Your task to perform on an android device: open the mobile data screen to see how much data has been used Image 0: 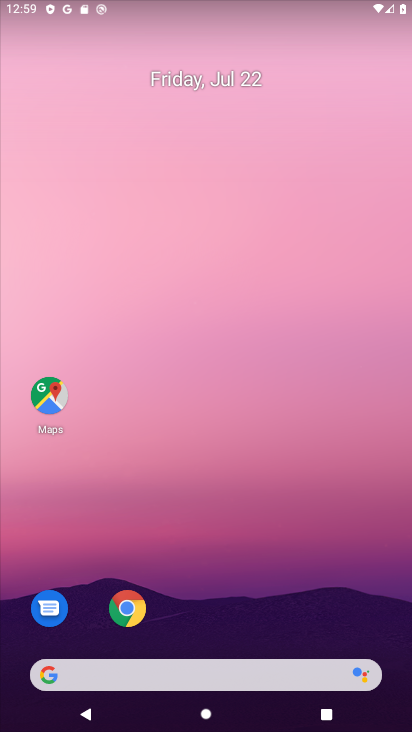
Step 0: drag from (302, 358) to (296, 544)
Your task to perform on an android device: open the mobile data screen to see how much data has been used Image 1: 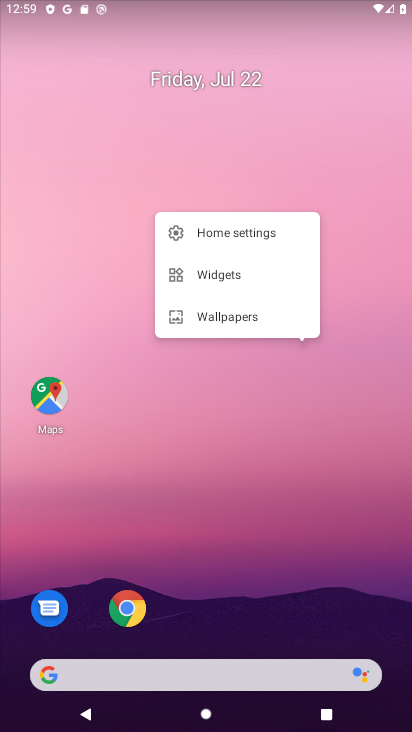
Step 1: click (255, 66)
Your task to perform on an android device: open the mobile data screen to see how much data has been used Image 2: 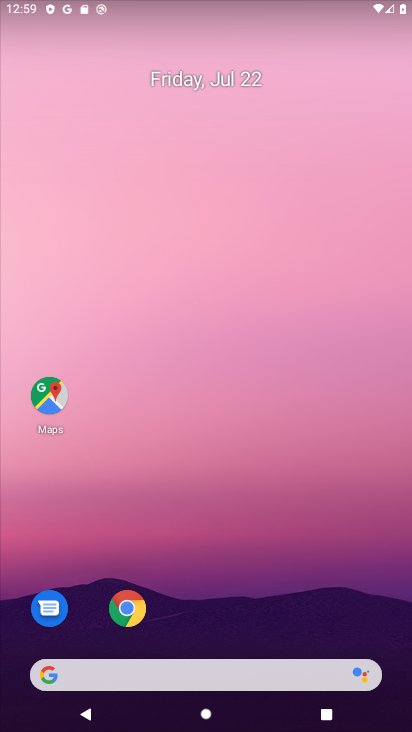
Step 2: drag from (275, 7) to (278, 535)
Your task to perform on an android device: open the mobile data screen to see how much data has been used Image 3: 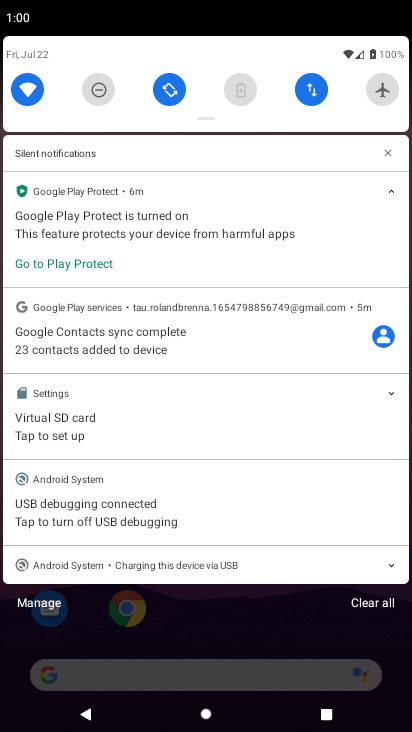
Step 3: click (309, 85)
Your task to perform on an android device: open the mobile data screen to see how much data has been used Image 4: 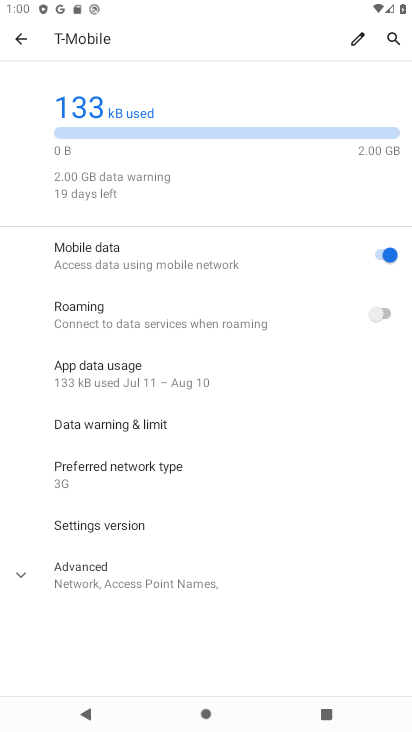
Step 4: task complete